Your task to perform on an android device: turn off notifications settings in the gmail app Image 0: 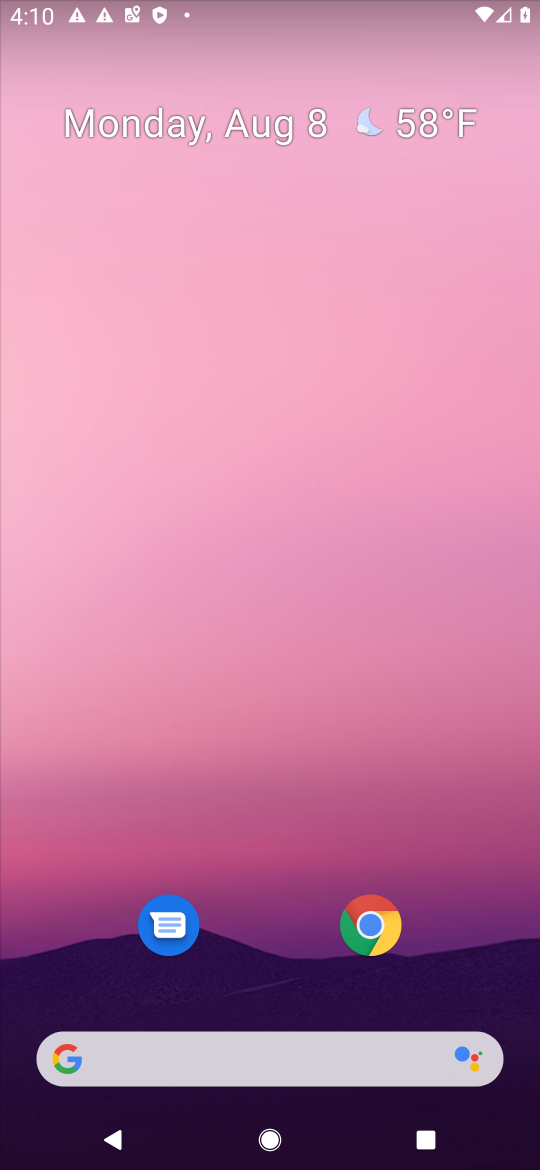
Step 0: drag from (249, 787) to (249, 260)
Your task to perform on an android device: turn off notifications settings in the gmail app Image 1: 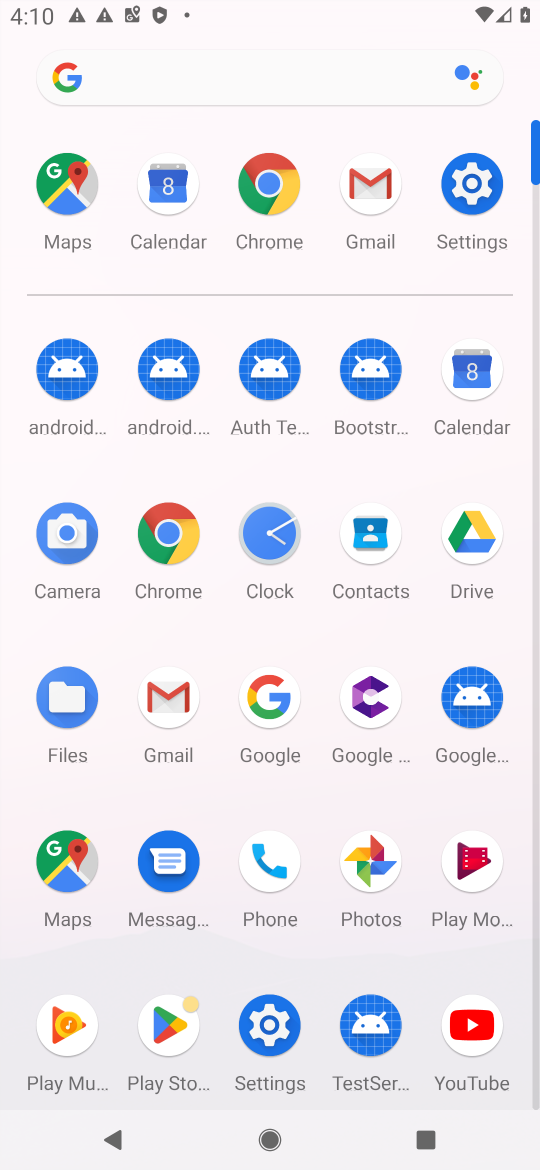
Step 1: click (172, 699)
Your task to perform on an android device: turn off notifications settings in the gmail app Image 2: 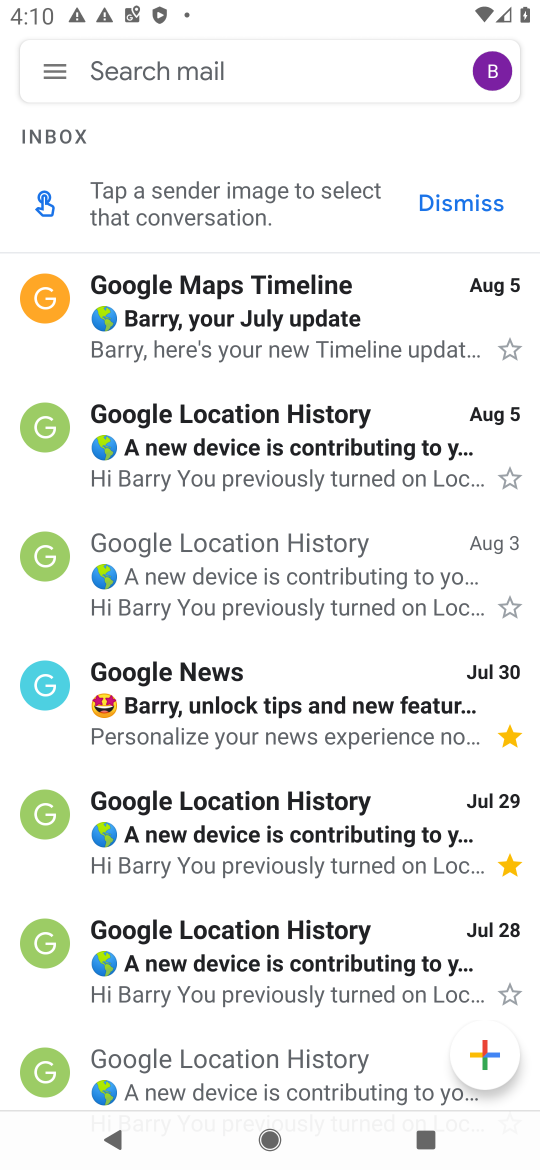
Step 2: click (59, 61)
Your task to perform on an android device: turn off notifications settings in the gmail app Image 3: 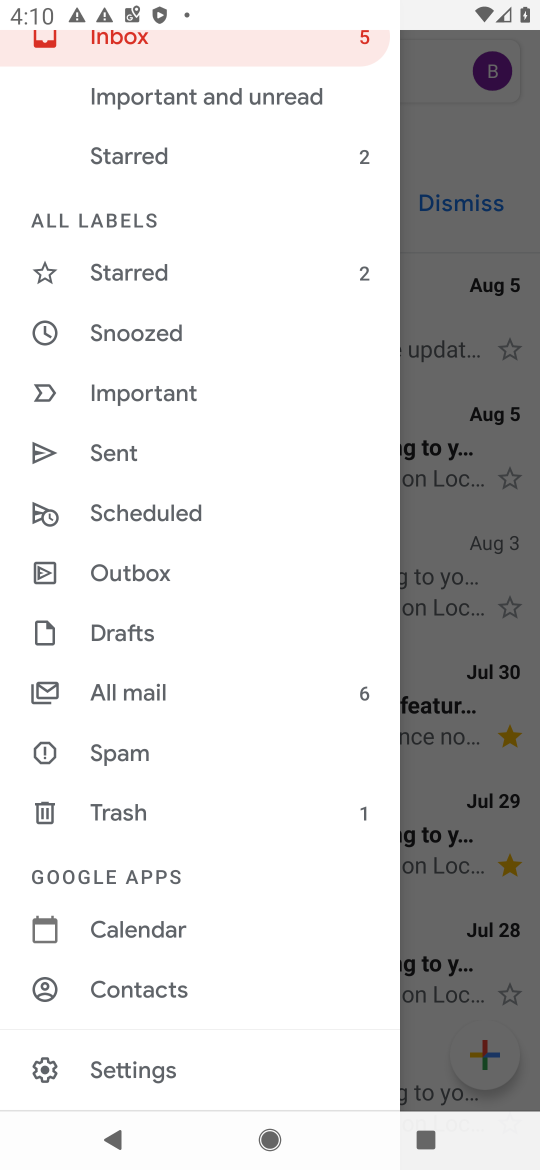
Step 3: click (126, 1064)
Your task to perform on an android device: turn off notifications settings in the gmail app Image 4: 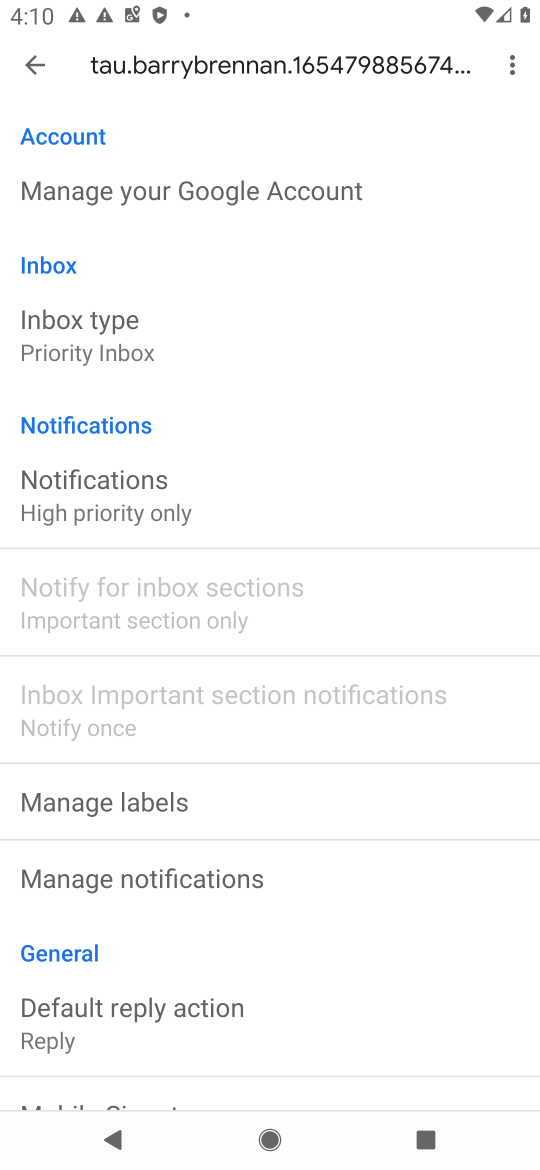
Step 4: click (119, 497)
Your task to perform on an android device: turn off notifications settings in the gmail app Image 5: 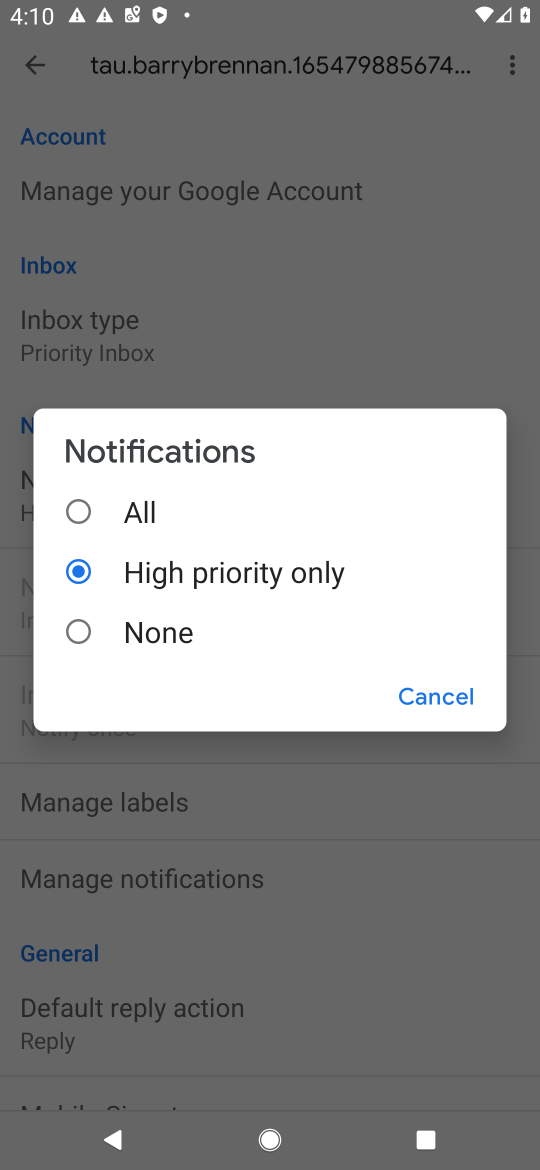
Step 5: click (76, 638)
Your task to perform on an android device: turn off notifications settings in the gmail app Image 6: 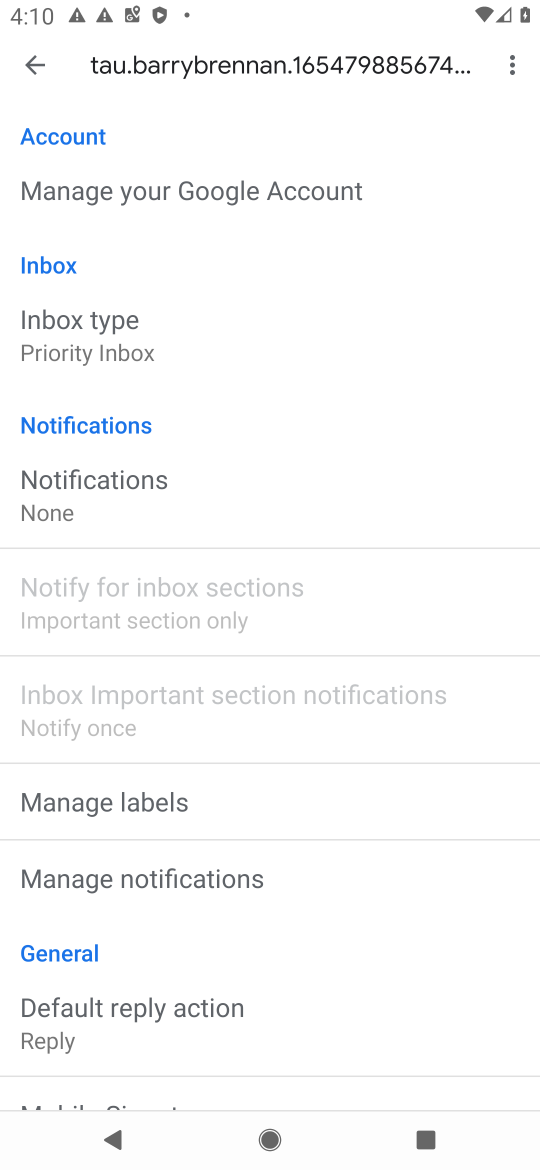
Step 6: task complete